Your task to perform on an android device: open app "Google Find My Device" Image 0: 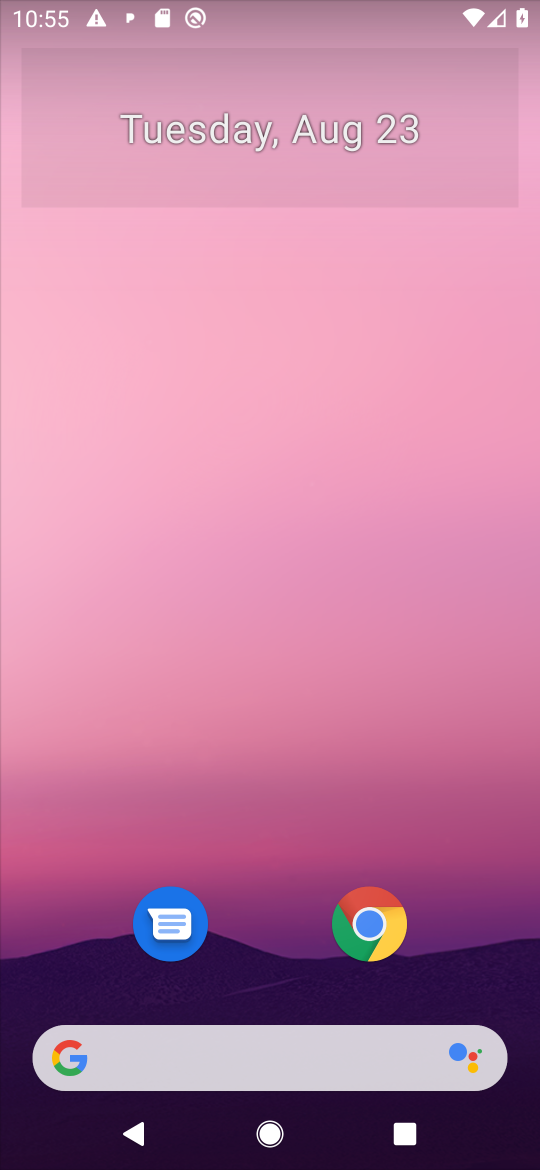
Step 0: press home button
Your task to perform on an android device: open app "Google Find My Device" Image 1: 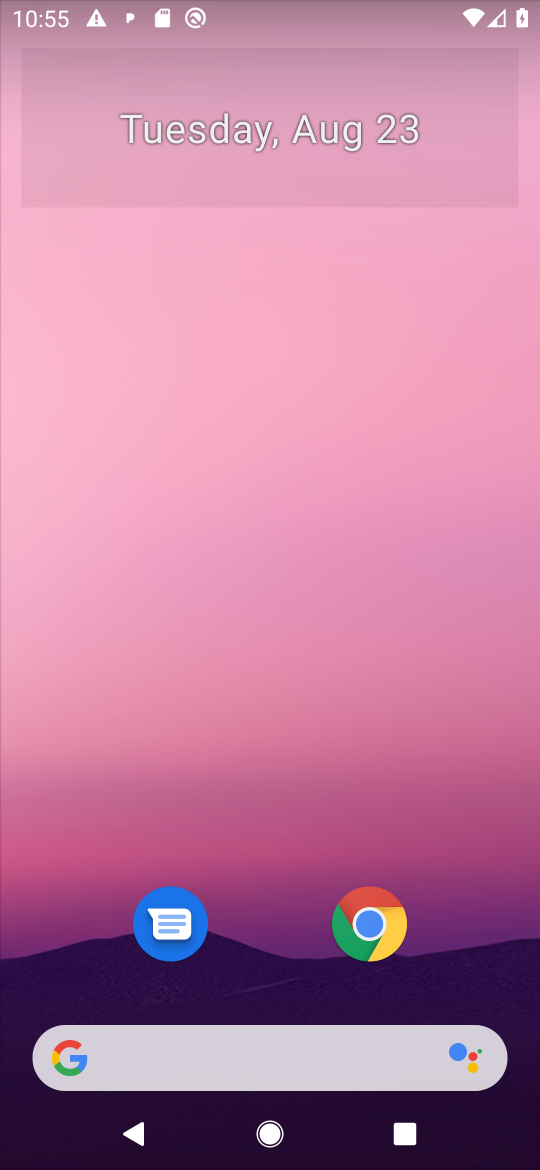
Step 1: drag from (465, 966) to (461, 91)
Your task to perform on an android device: open app "Google Find My Device" Image 2: 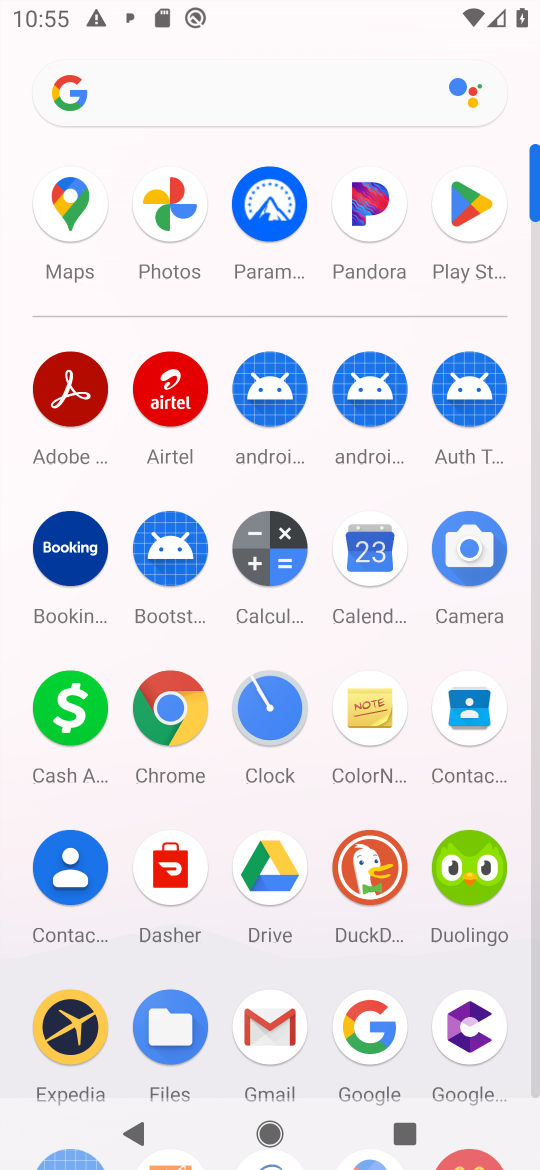
Step 2: click (464, 216)
Your task to perform on an android device: open app "Google Find My Device" Image 3: 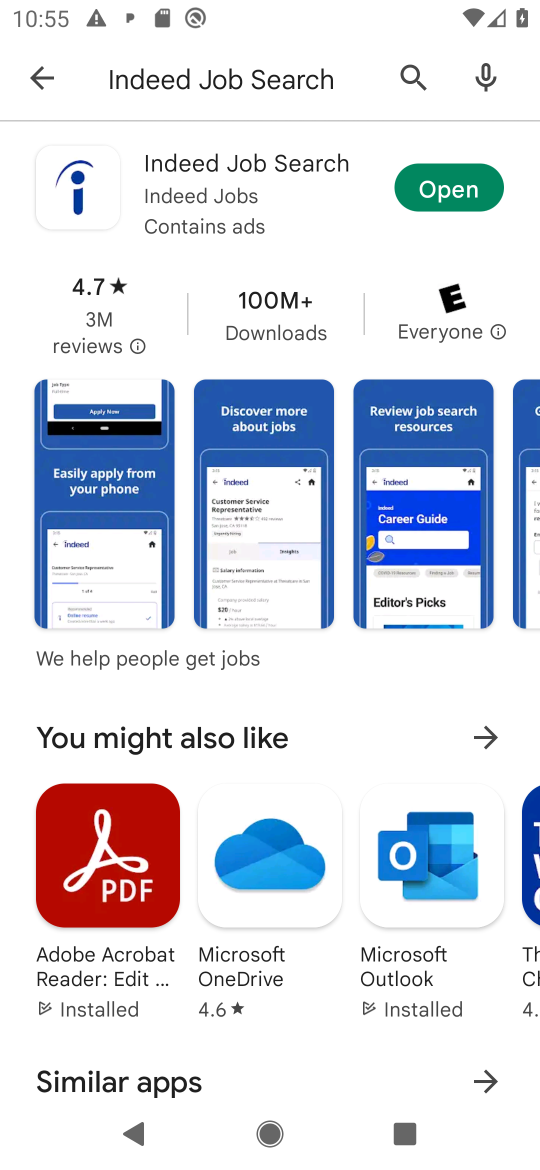
Step 3: press back button
Your task to perform on an android device: open app "Google Find My Device" Image 4: 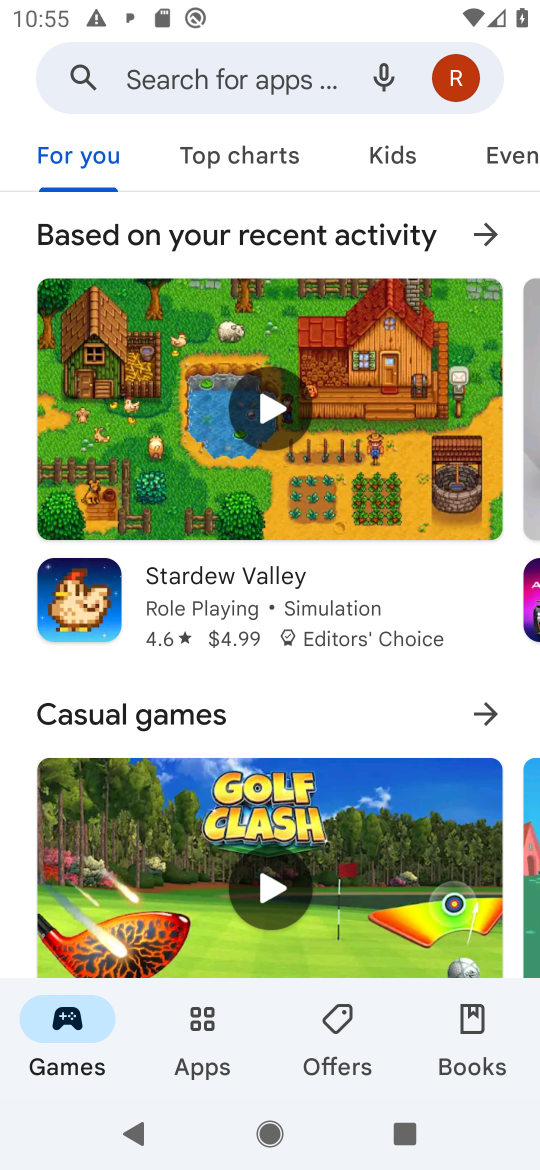
Step 4: click (312, 86)
Your task to perform on an android device: open app "Google Find My Device" Image 5: 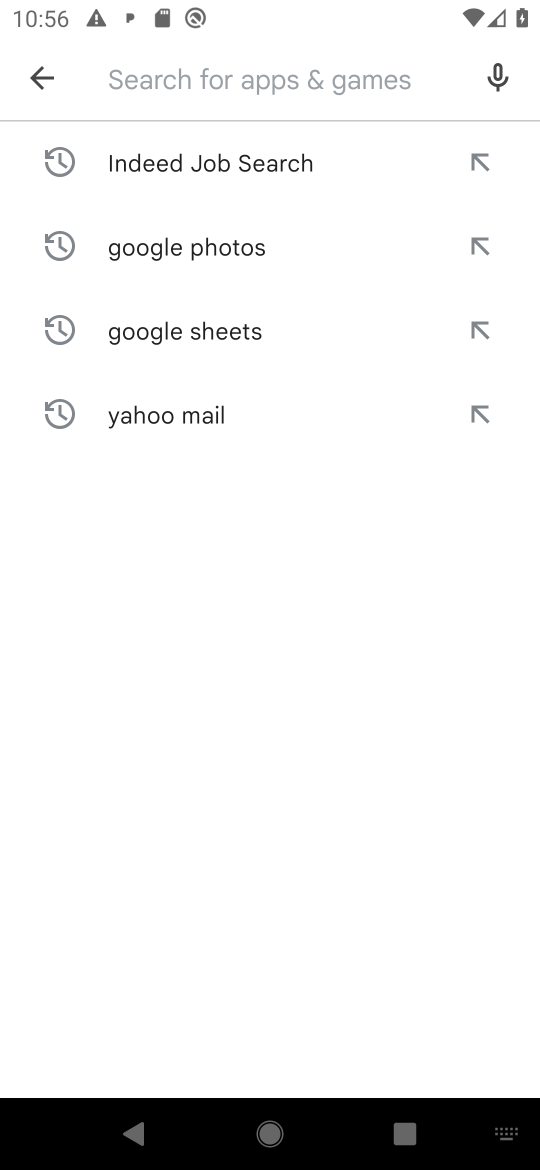
Step 5: type "Google Find My Device"
Your task to perform on an android device: open app "Google Find My Device" Image 6: 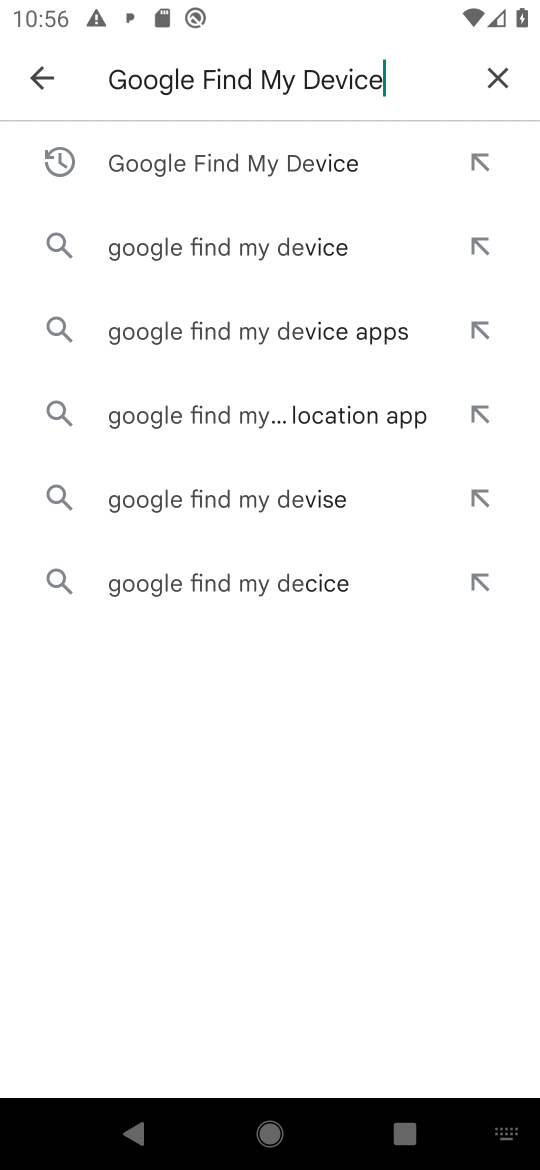
Step 6: press enter
Your task to perform on an android device: open app "Google Find My Device" Image 7: 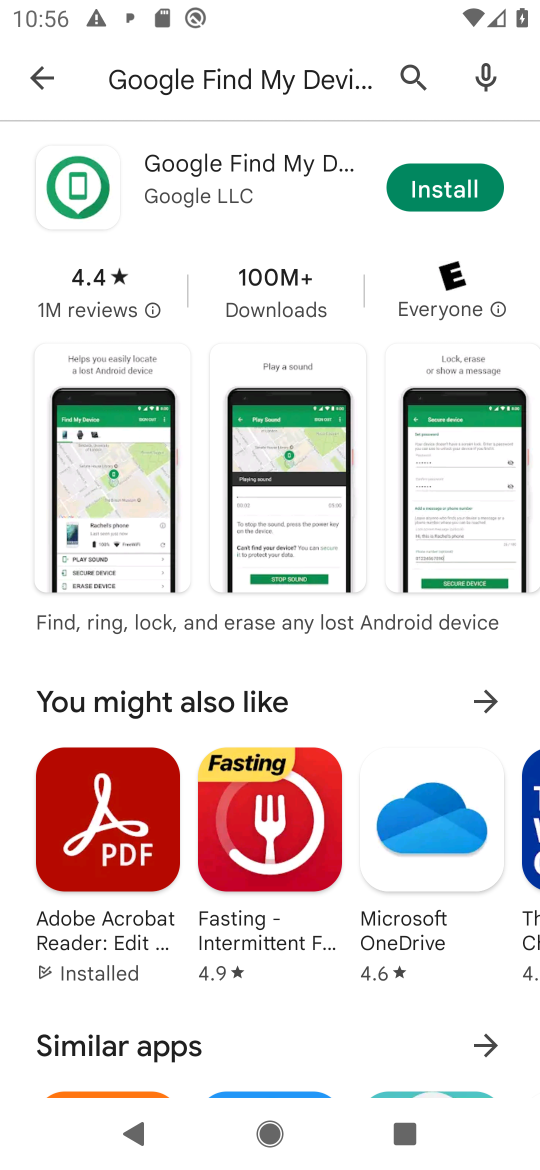
Step 7: task complete